Your task to perform on an android device: star an email in the gmail app Image 0: 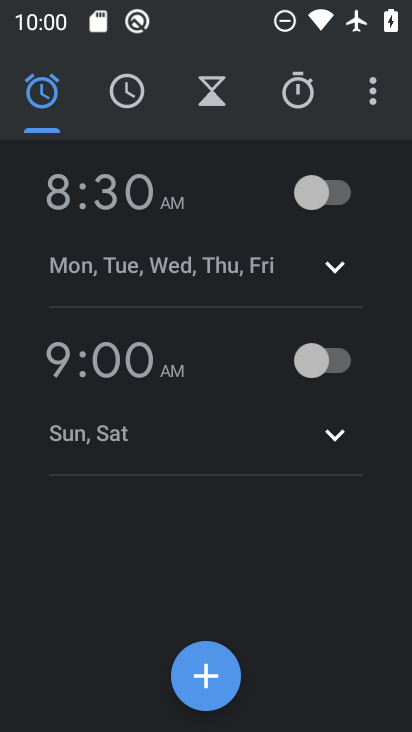
Step 0: press home button
Your task to perform on an android device: star an email in the gmail app Image 1: 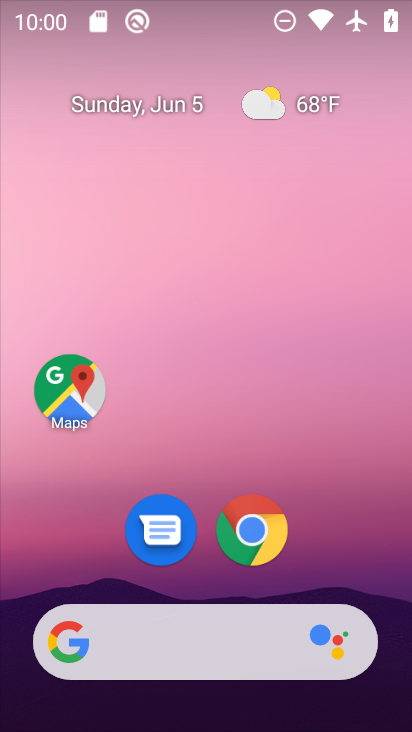
Step 1: drag from (395, 623) to (301, 79)
Your task to perform on an android device: star an email in the gmail app Image 2: 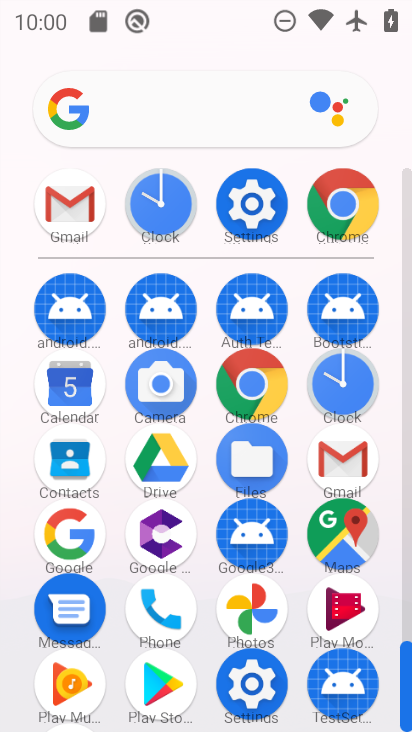
Step 2: click (342, 458)
Your task to perform on an android device: star an email in the gmail app Image 3: 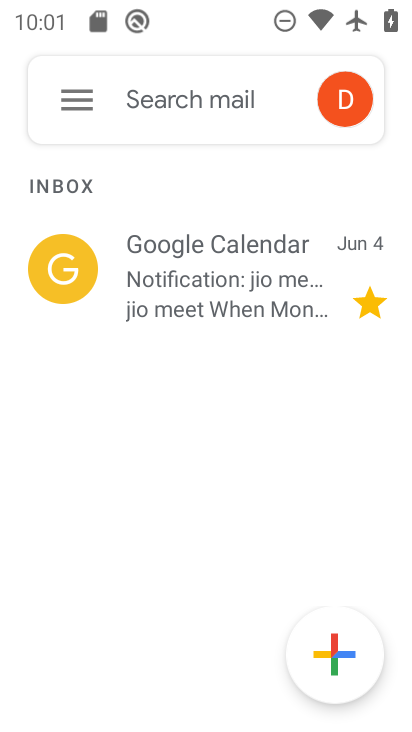
Step 3: task complete